Your task to perform on an android device: Show me the alarms in the clock app Image 0: 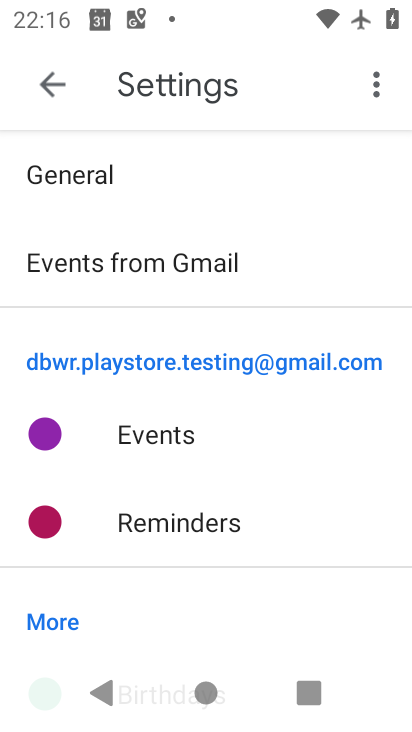
Step 0: press home button
Your task to perform on an android device: Show me the alarms in the clock app Image 1: 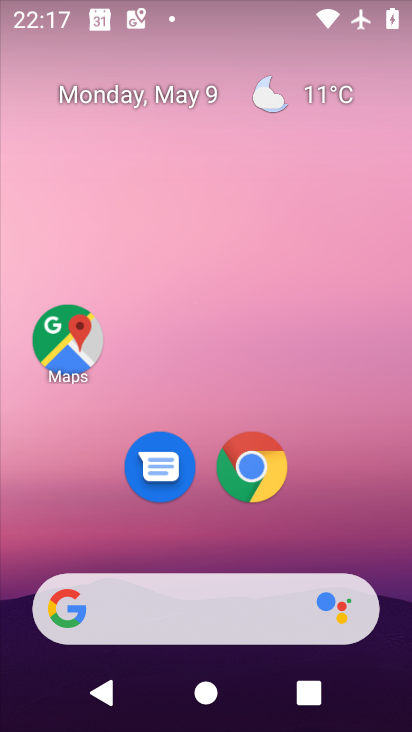
Step 1: drag from (325, 486) to (335, 207)
Your task to perform on an android device: Show me the alarms in the clock app Image 2: 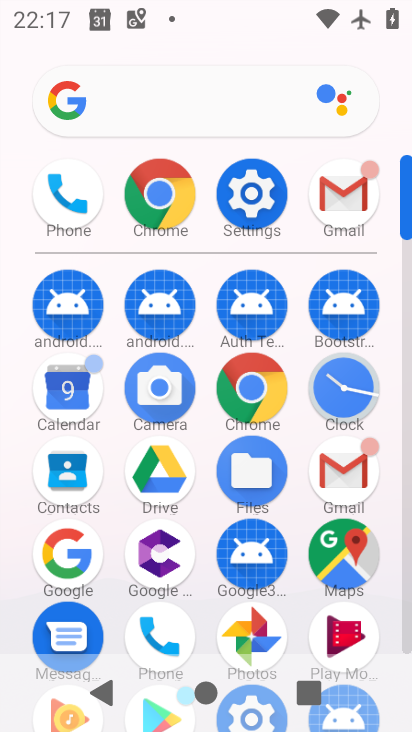
Step 2: click (322, 384)
Your task to perform on an android device: Show me the alarms in the clock app Image 3: 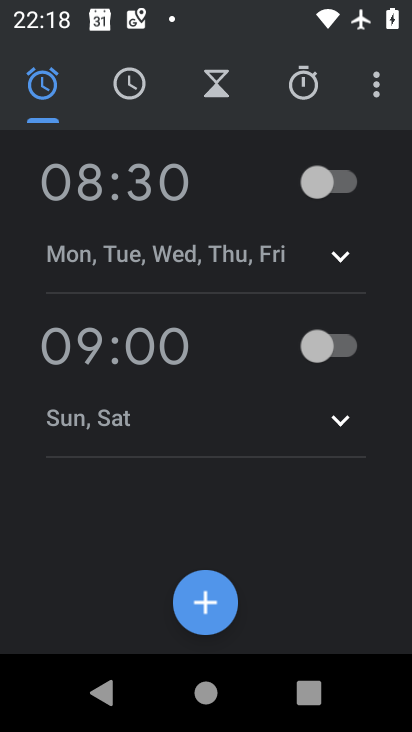
Step 3: task complete